Your task to perform on an android device: all mails in gmail Image 0: 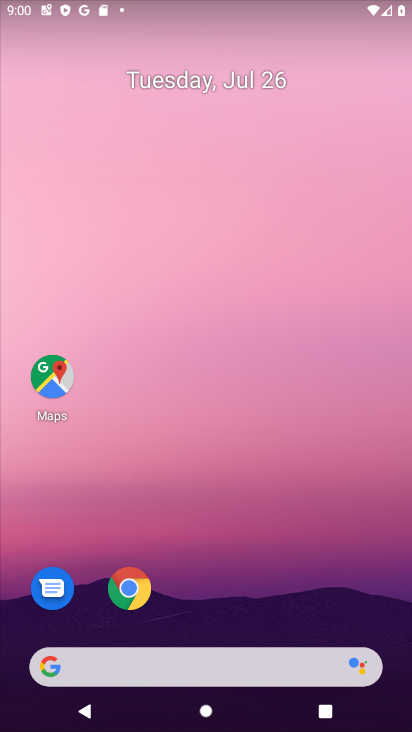
Step 0: press home button
Your task to perform on an android device: all mails in gmail Image 1: 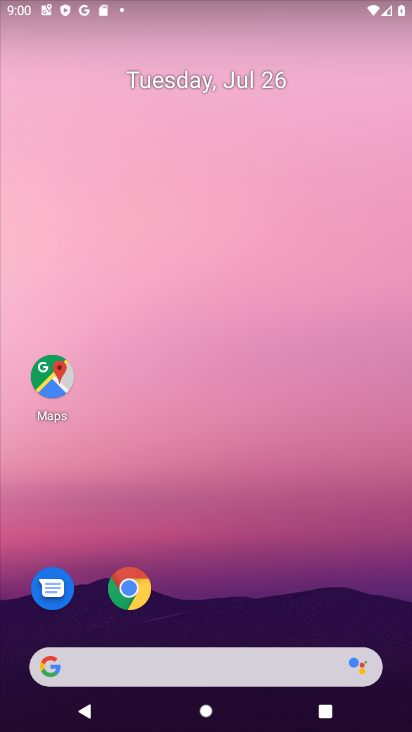
Step 1: drag from (202, 627) to (222, 91)
Your task to perform on an android device: all mails in gmail Image 2: 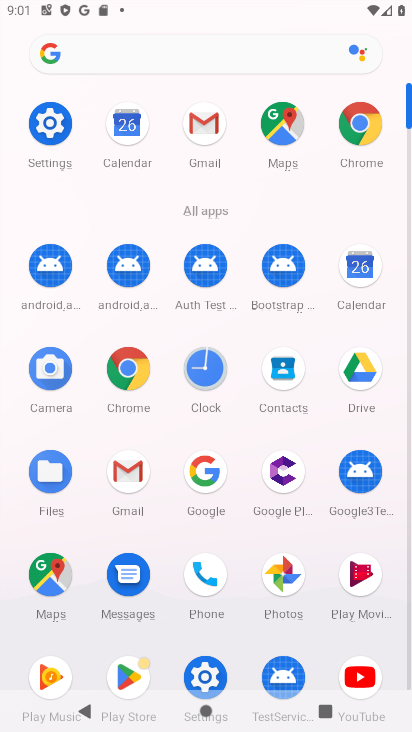
Step 2: click (203, 118)
Your task to perform on an android device: all mails in gmail Image 3: 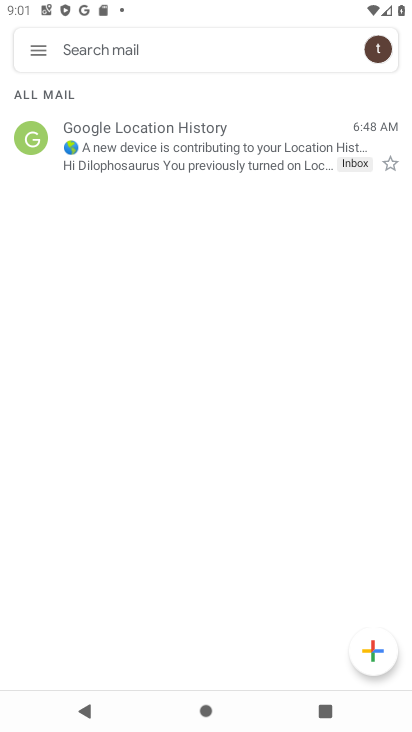
Step 3: task complete